Your task to perform on an android device: Open Chrome and go to settings Image 0: 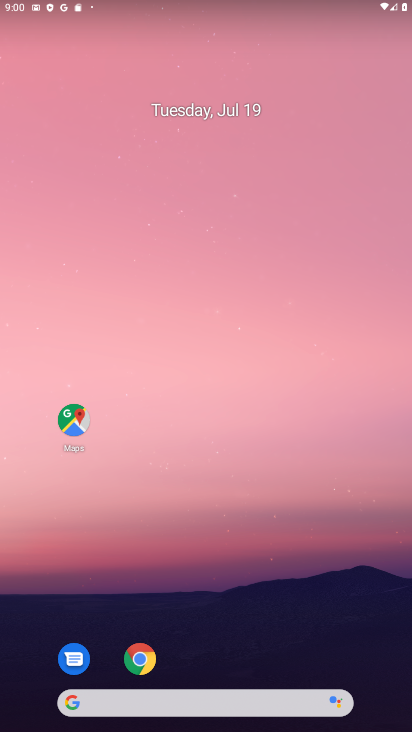
Step 0: drag from (257, 635) to (209, 156)
Your task to perform on an android device: Open Chrome and go to settings Image 1: 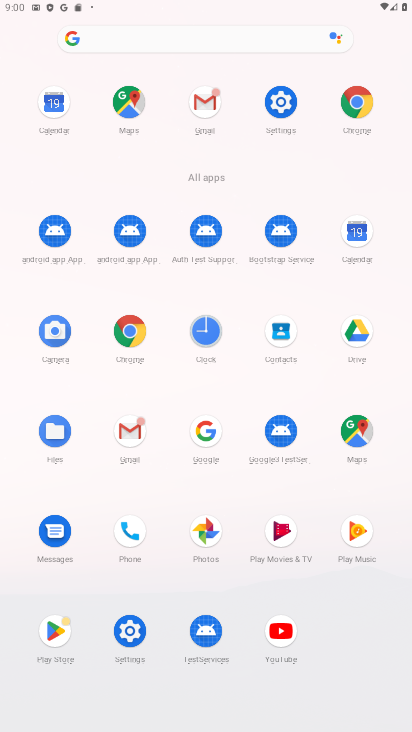
Step 1: click (367, 109)
Your task to perform on an android device: Open Chrome and go to settings Image 2: 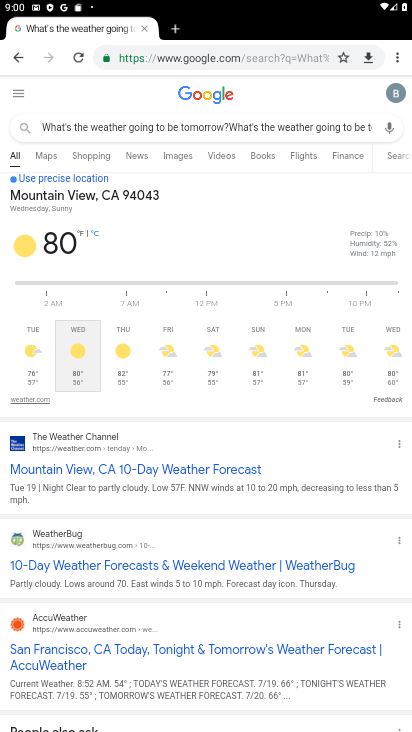
Step 2: task complete